Your task to perform on an android device: Check the weather Image 0: 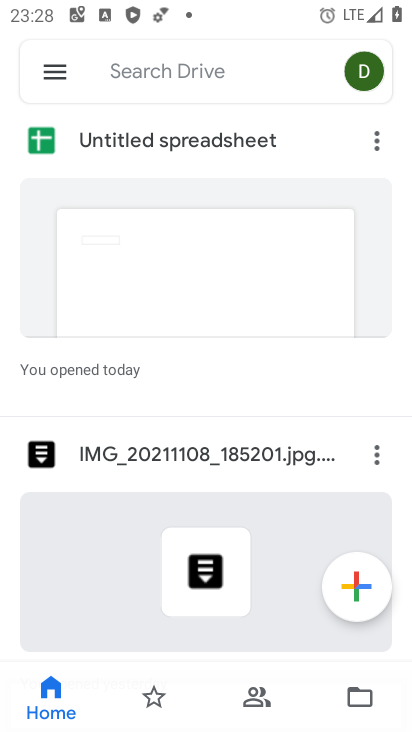
Step 0: press home button
Your task to perform on an android device: Check the weather Image 1: 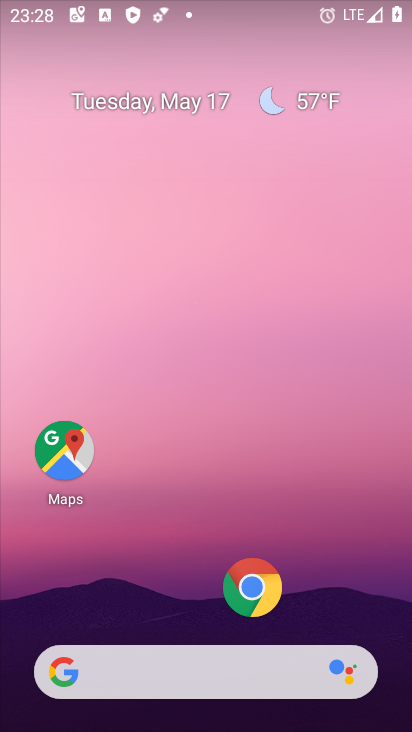
Step 1: click (183, 681)
Your task to perform on an android device: Check the weather Image 2: 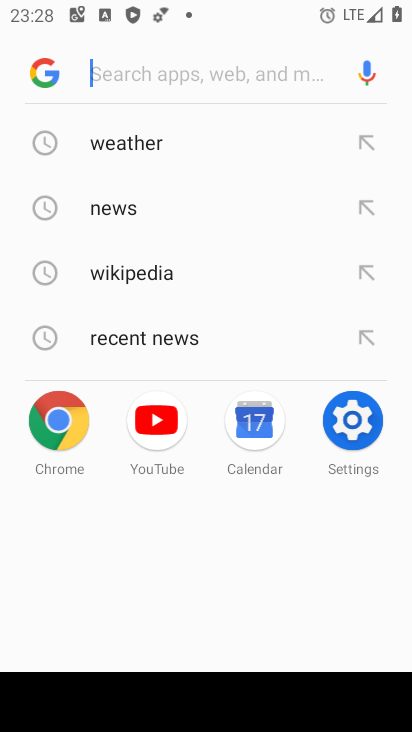
Step 2: click (144, 142)
Your task to perform on an android device: Check the weather Image 3: 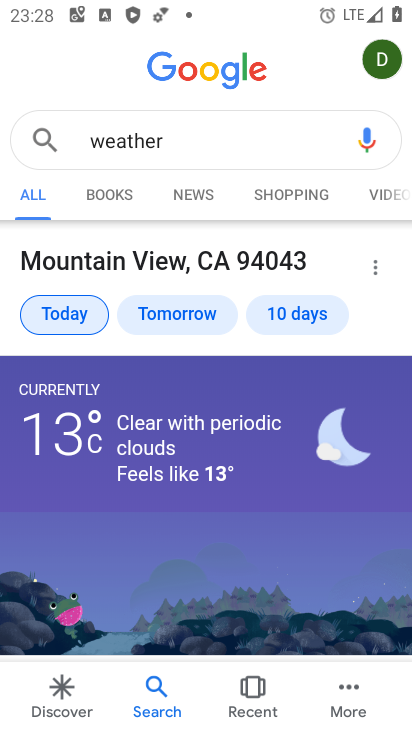
Step 3: task complete